Your task to perform on an android device: Clear the cart on newegg. Image 0: 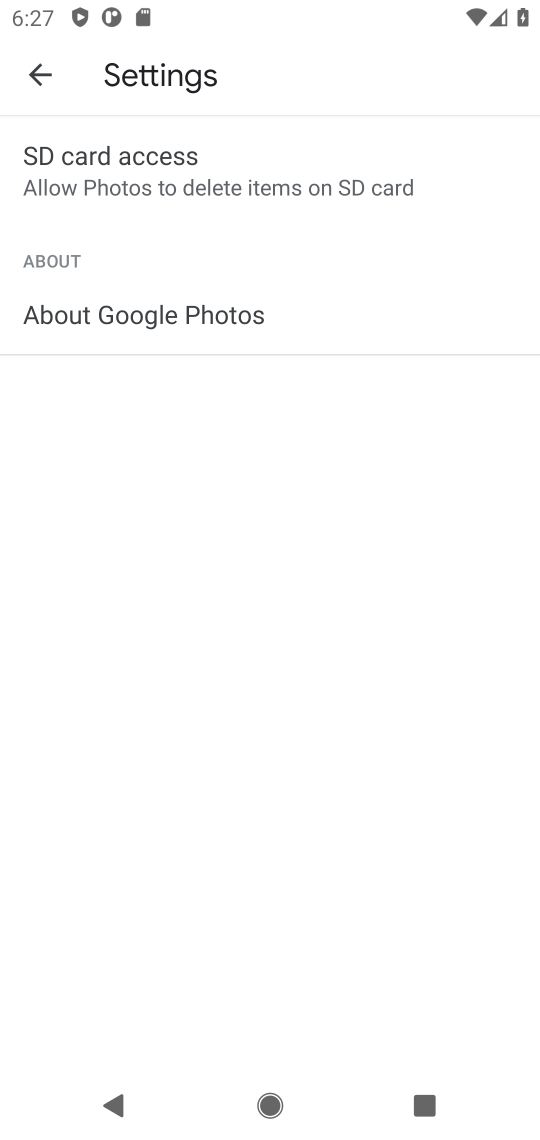
Step 0: press home button
Your task to perform on an android device: Clear the cart on newegg. Image 1: 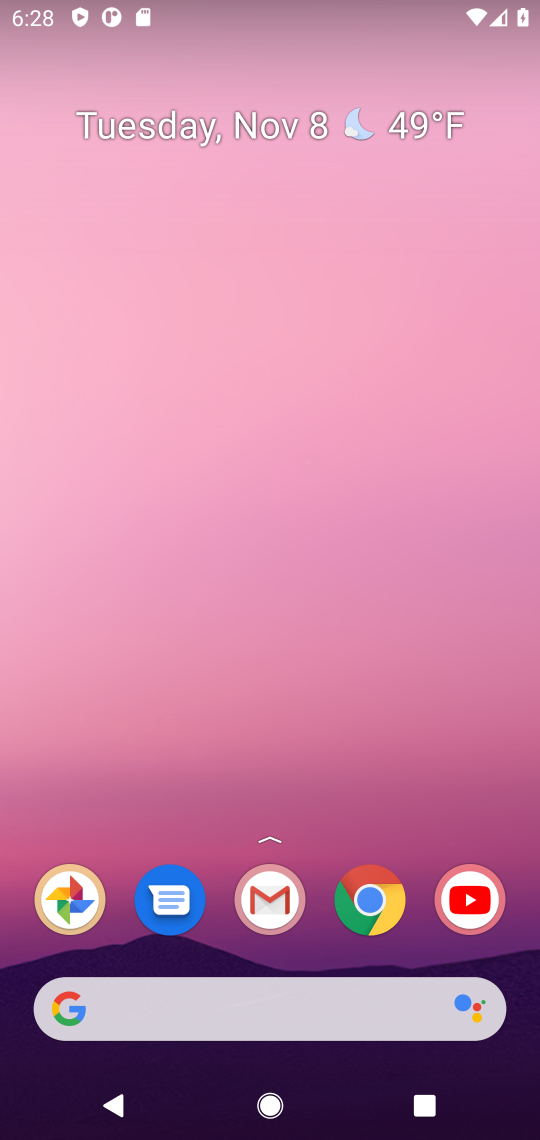
Step 1: drag from (226, 987) to (239, 3)
Your task to perform on an android device: Clear the cart on newegg. Image 2: 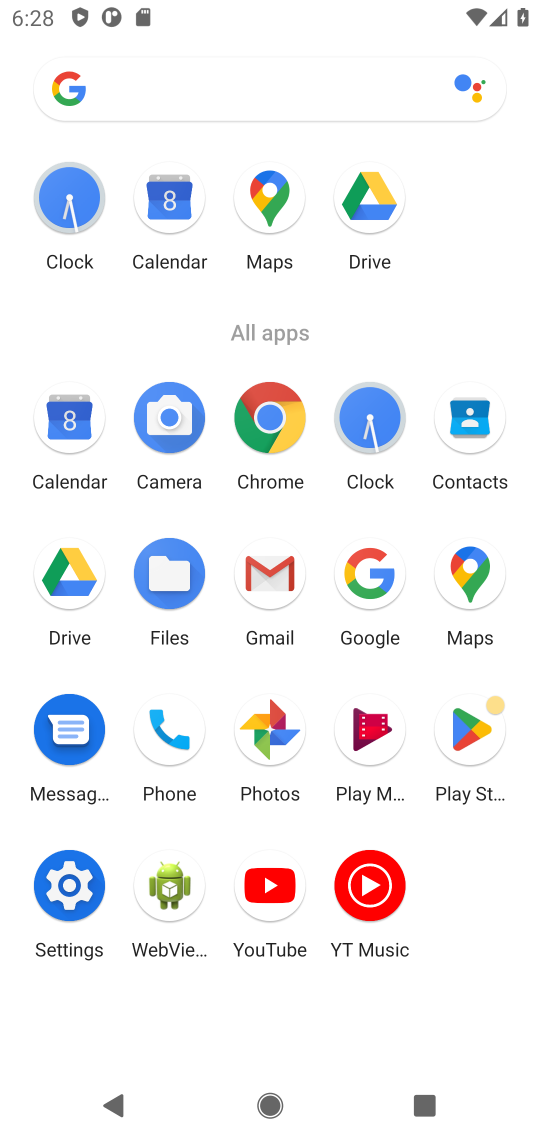
Step 2: click (366, 572)
Your task to perform on an android device: Clear the cart on newegg. Image 3: 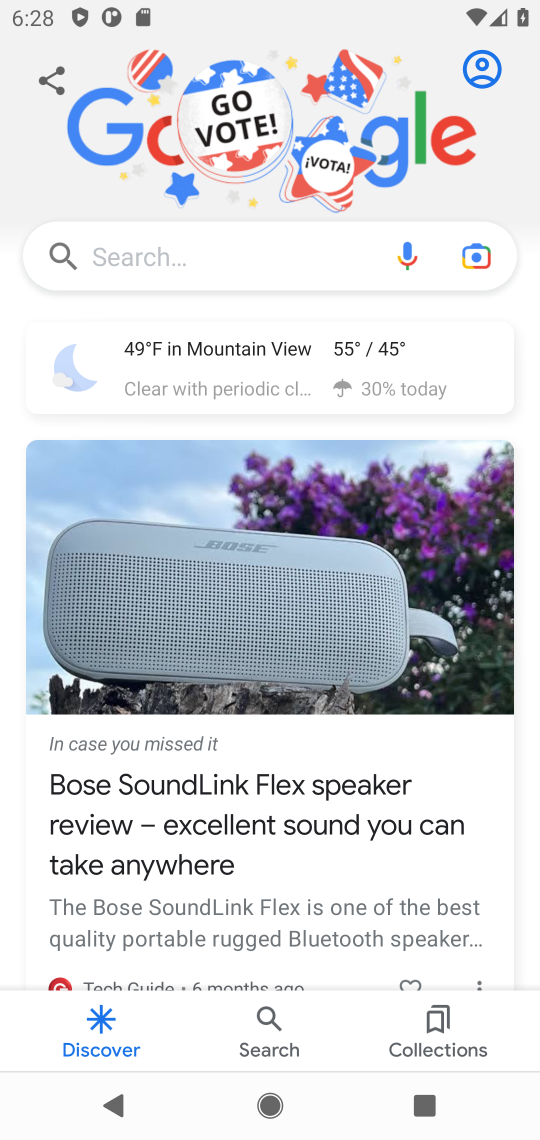
Step 3: click (180, 249)
Your task to perform on an android device: Clear the cart on newegg. Image 4: 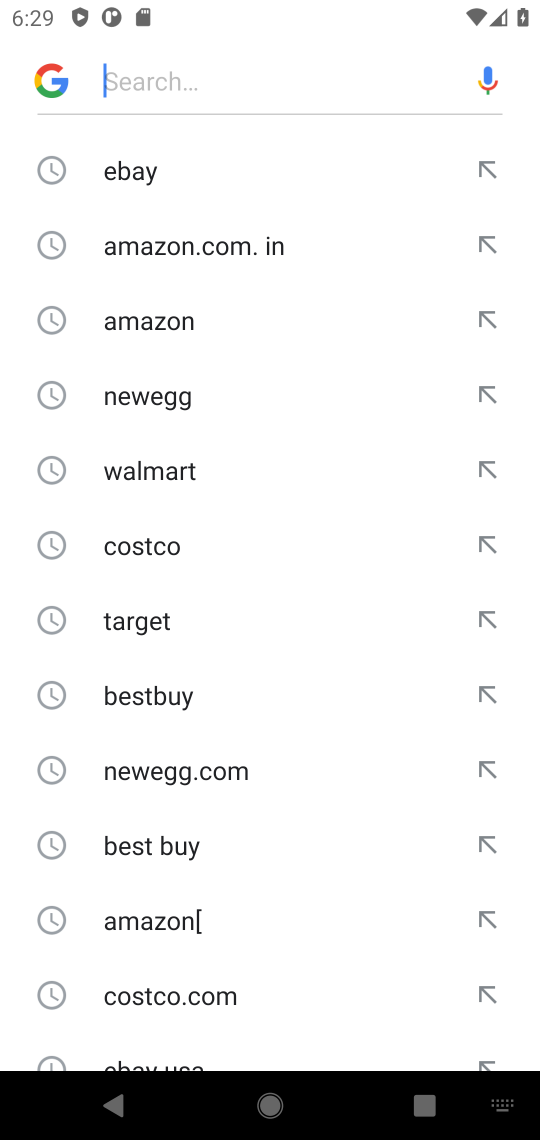
Step 4: type "newegg "
Your task to perform on an android device: Clear the cart on newegg. Image 5: 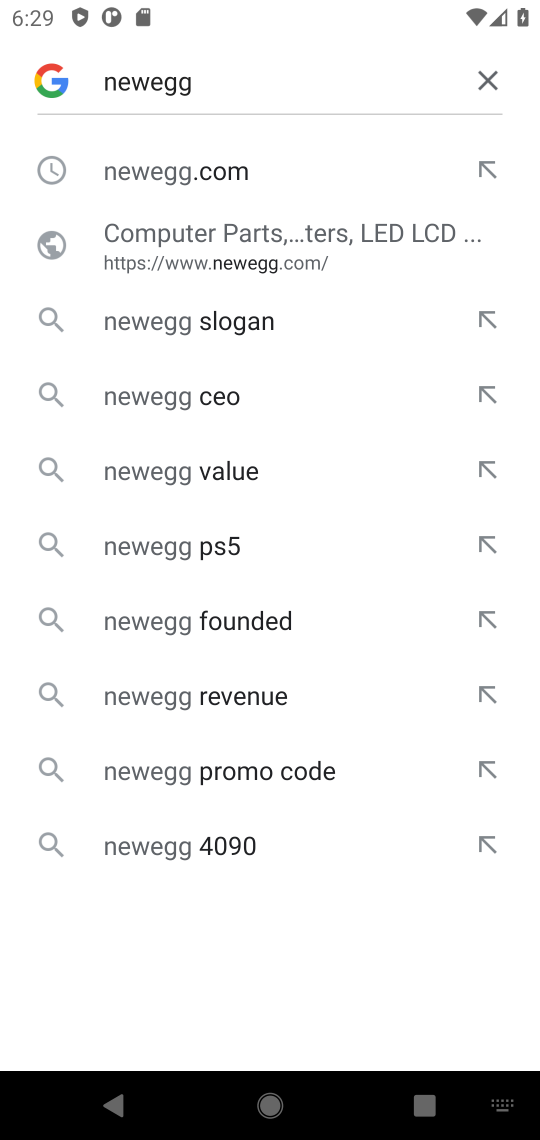
Step 5: click (189, 185)
Your task to perform on an android device: Clear the cart on newegg. Image 6: 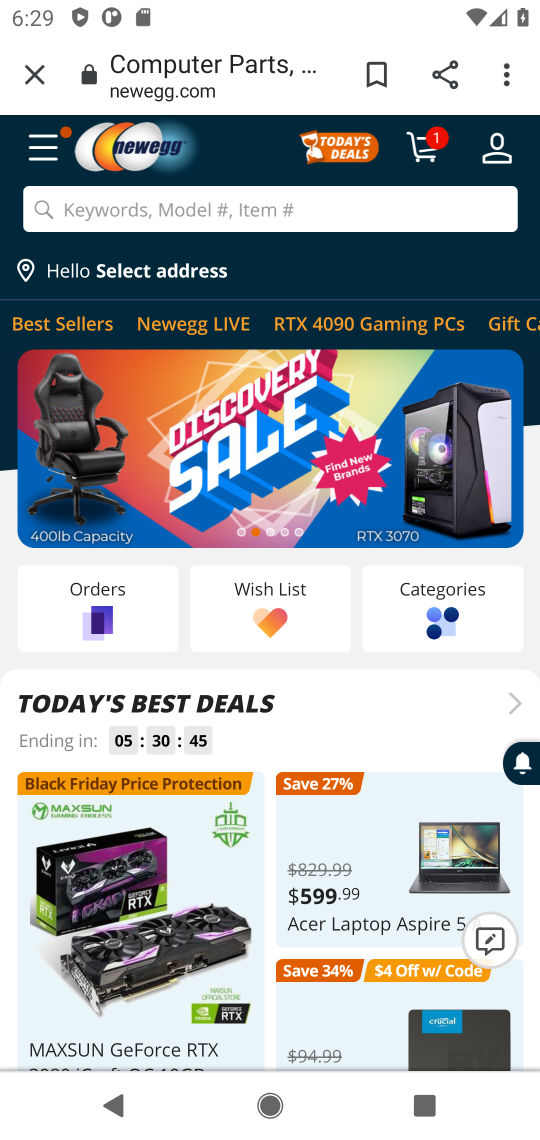
Step 6: click (427, 127)
Your task to perform on an android device: Clear the cart on newegg. Image 7: 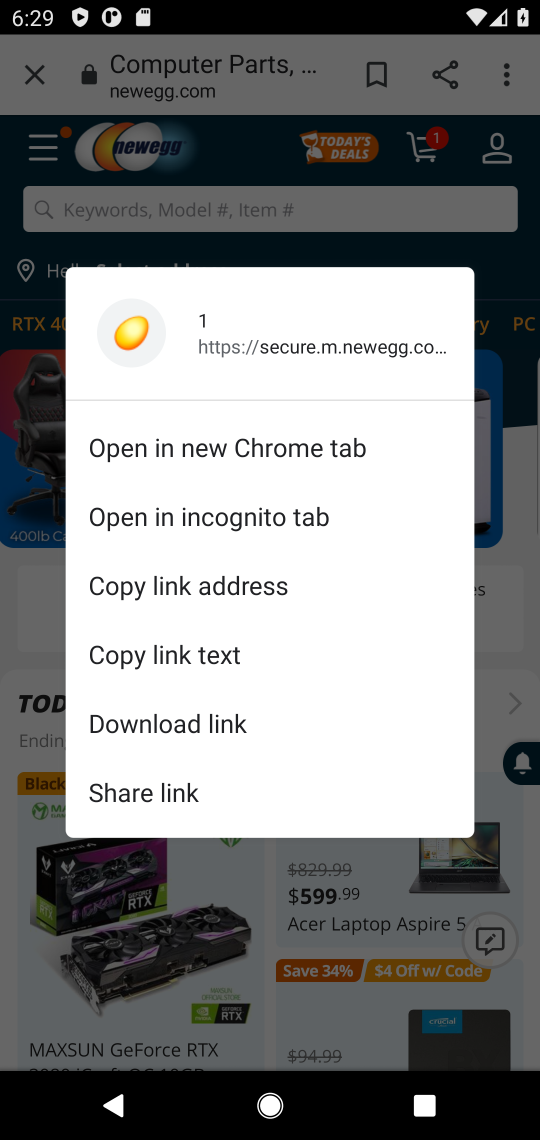
Step 7: click (487, 272)
Your task to perform on an android device: Clear the cart on newegg. Image 8: 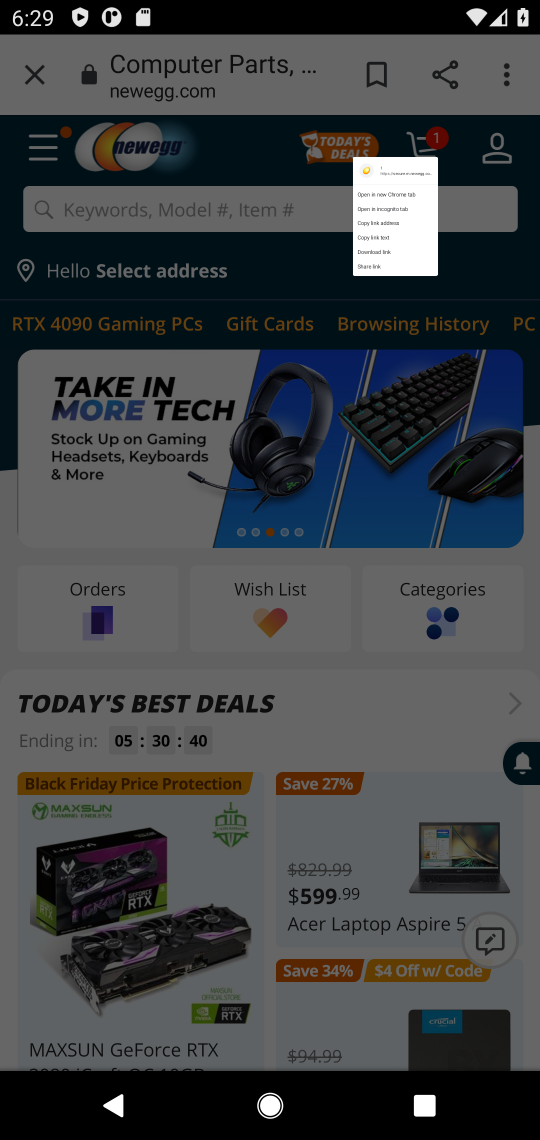
Step 8: click (431, 137)
Your task to perform on an android device: Clear the cart on newegg. Image 9: 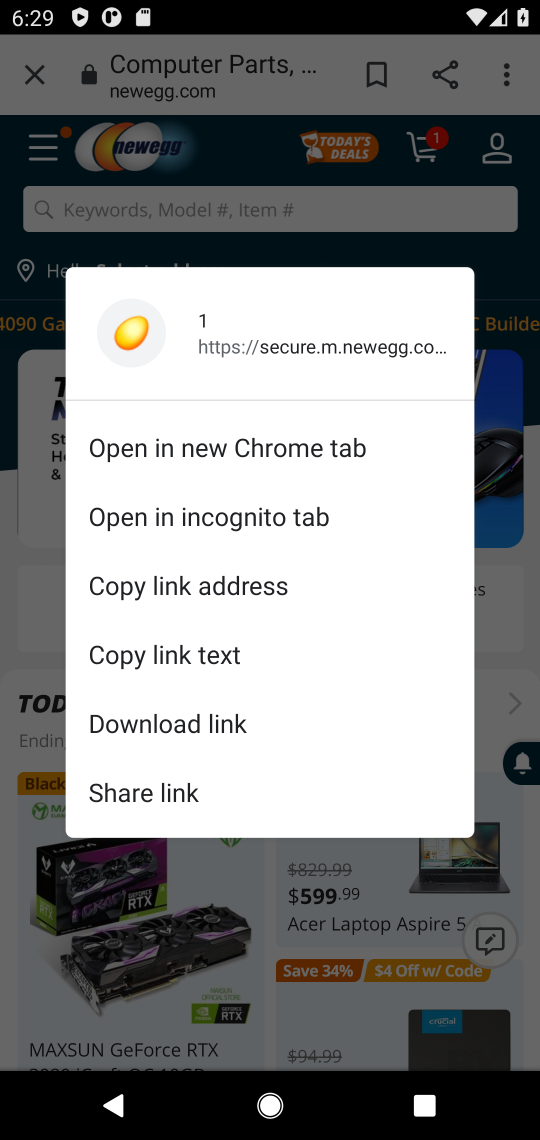
Step 9: click (431, 137)
Your task to perform on an android device: Clear the cart on newegg. Image 10: 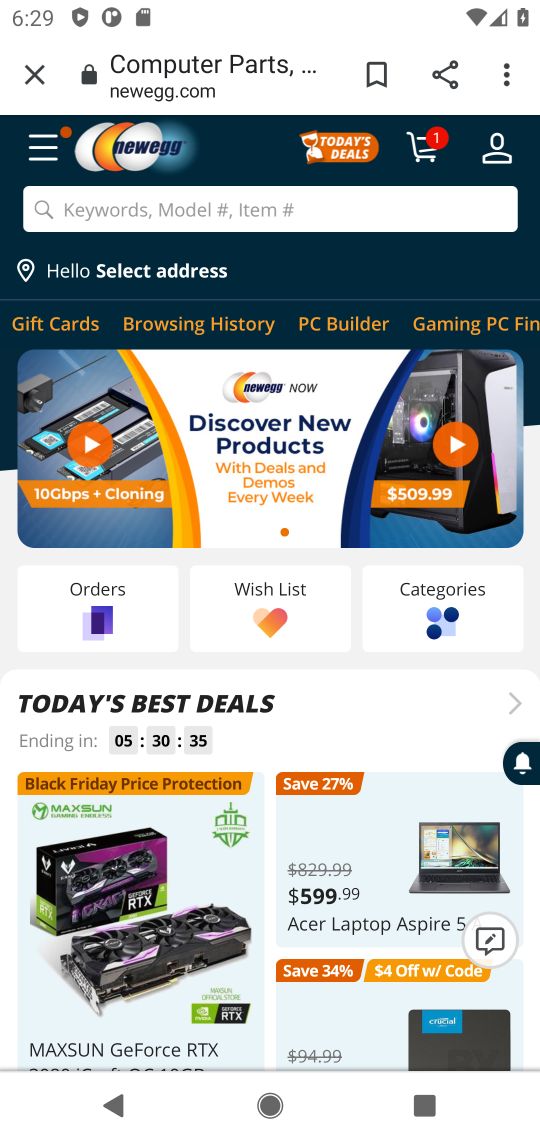
Step 10: click (428, 140)
Your task to perform on an android device: Clear the cart on newegg. Image 11: 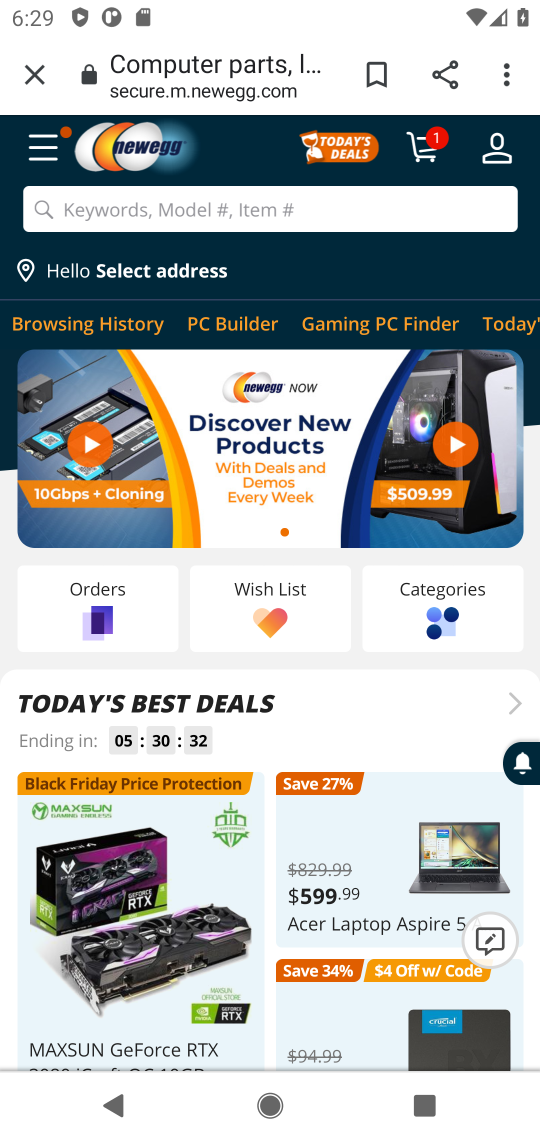
Step 11: click (428, 144)
Your task to perform on an android device: Clear the cart on newegg. Image 12: 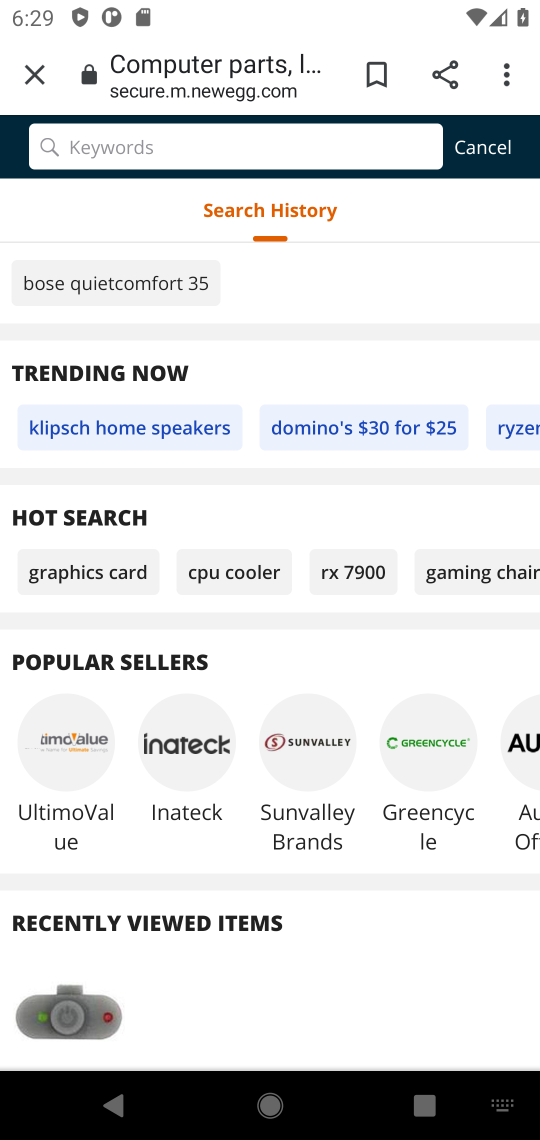
Step 12: click (484, 146)
Your task to perform on an android device: Clear the cart on newegg. Image 13: 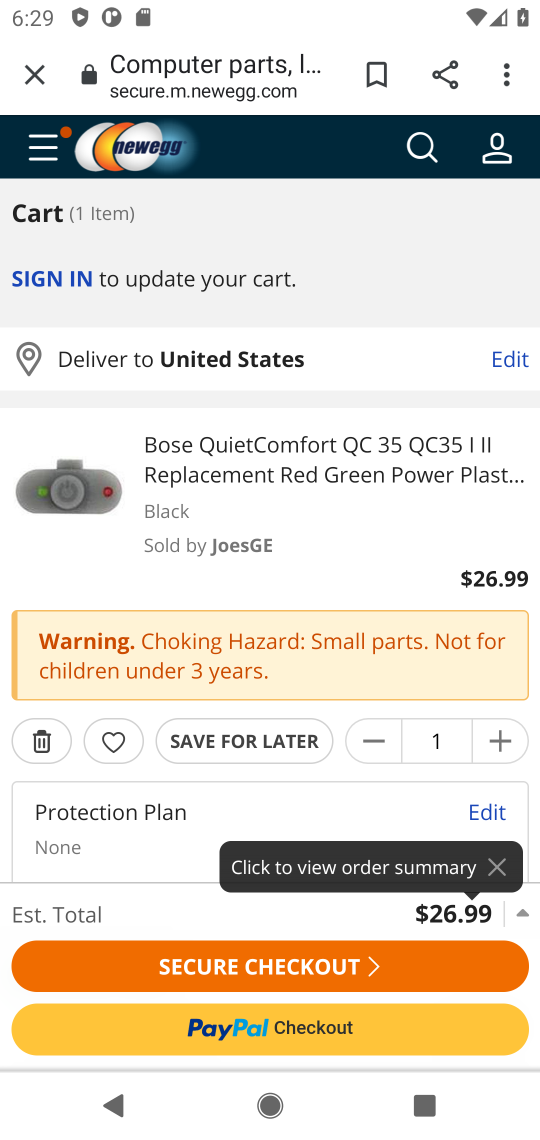
Step 13: click (47, 736)
Your task to perform on an android device: Clear the cart on newegg. Image 14: 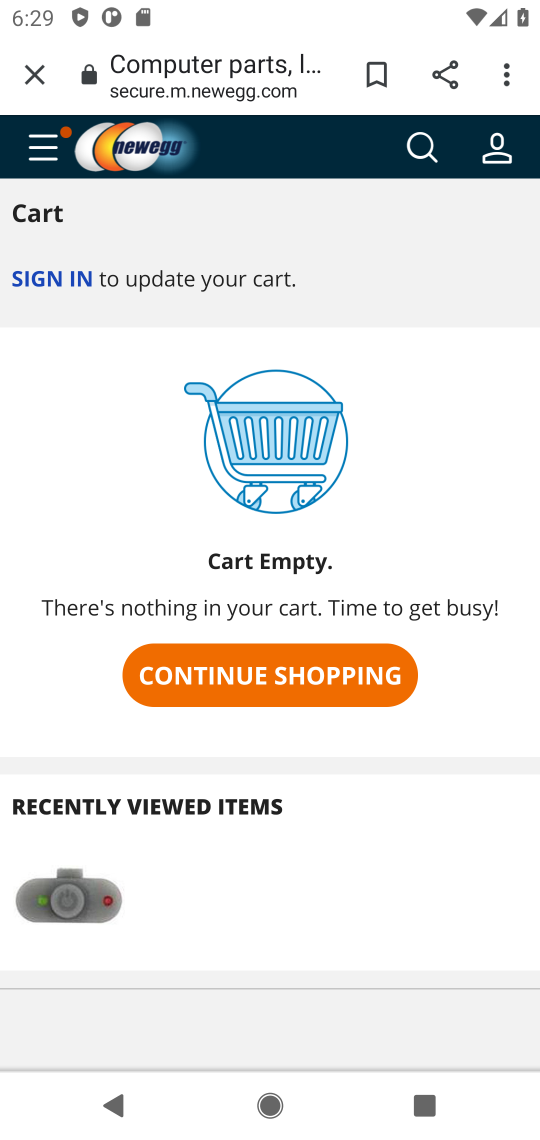
Step 14: task complete